Your task to perform on an android device: Open the calendar app, open the side menu, and click the "Day" option Image 0: 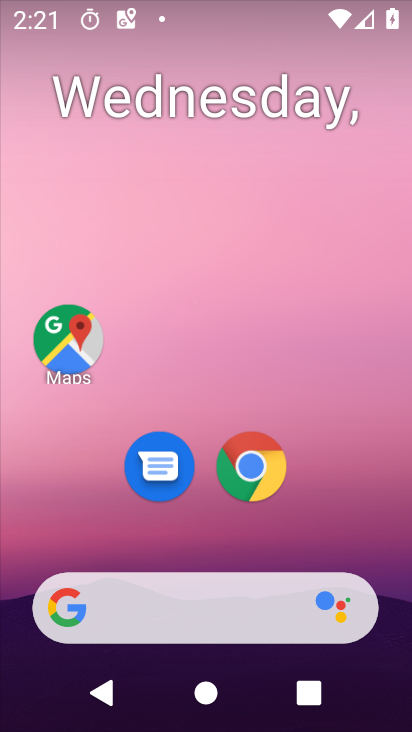
Step 0: drag from (287, 512) to (5, 127)
Your task to perform on an android device: Open the calendar app, open the side menu, and click the "Day" option Image 1: 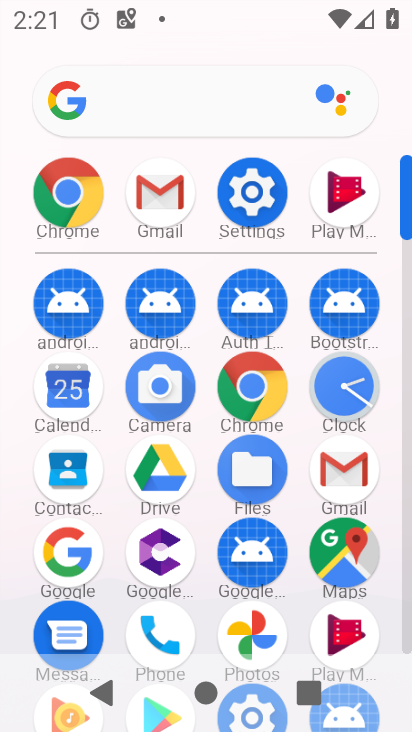
Step 1: click (61, 376)
Your task to perform on an android device: Open the calendar app, open the side menu, and click the "Day" option Image 2: 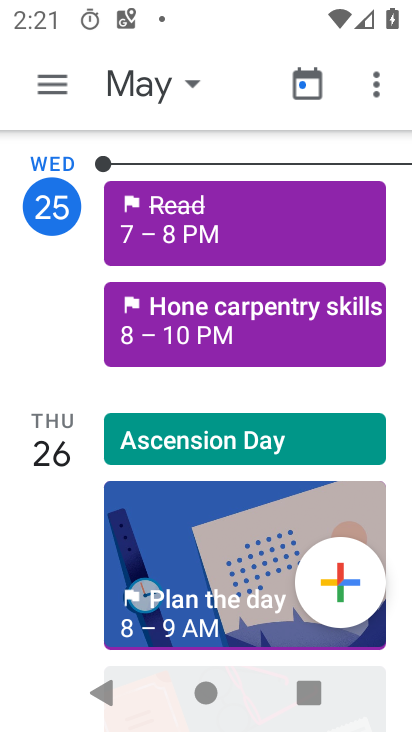
Step 2: click (46, 77)
Your task to perform on an android device: Open the calendar app, open the side menu, and click the "Day" option Image 3: 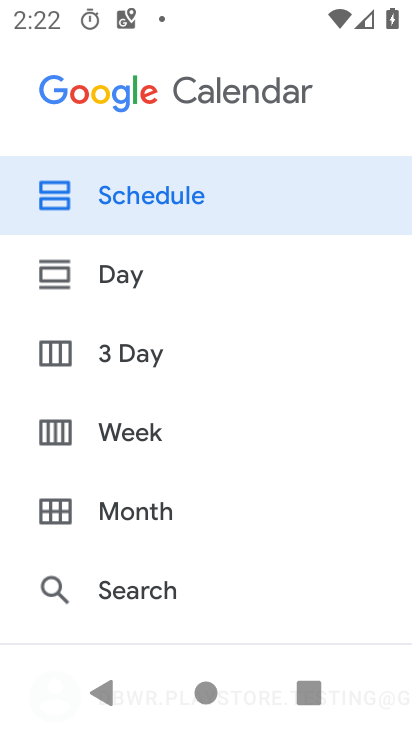
Step 3: click (217, 271)
Your task to perform on an android device: Open the calendar app, open the side menu, and click the "Day" option Image 4: 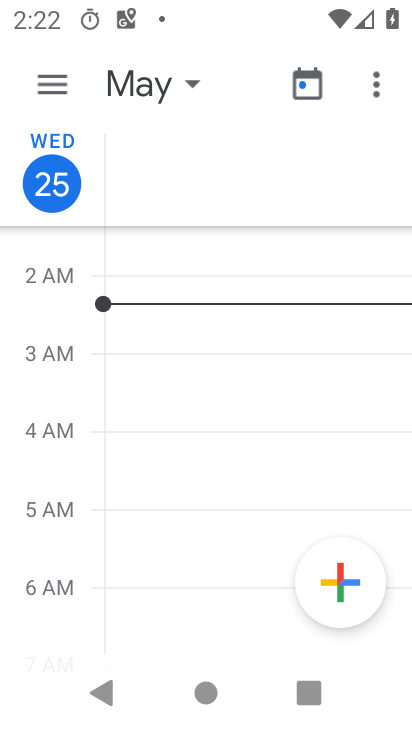
Step 4: task complete